Your task to perform on an android device: Go to accessibility settings Image 0: 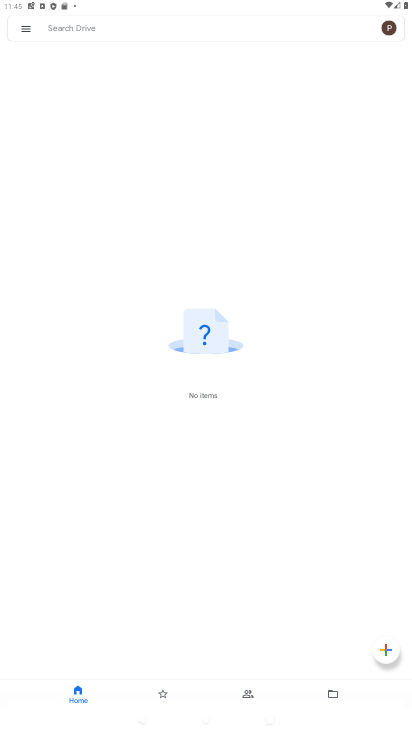
Step 0: press home button
Your task to perform on an android device: Go to accessibility settings Image 1: 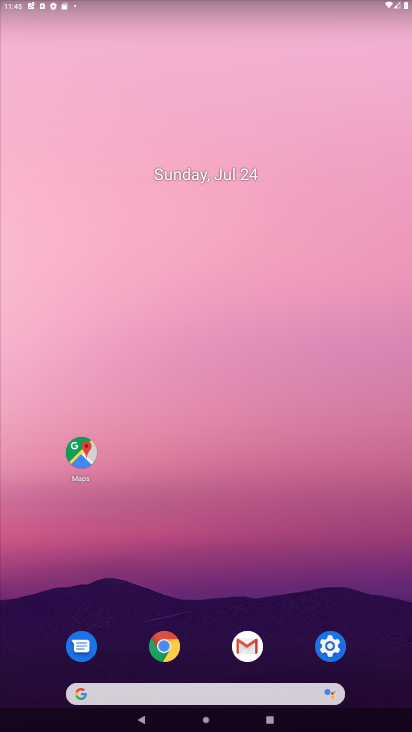
Step 1: click (333, 648)
Your task to perform on an android device: Go to accessibility settings Image 2: 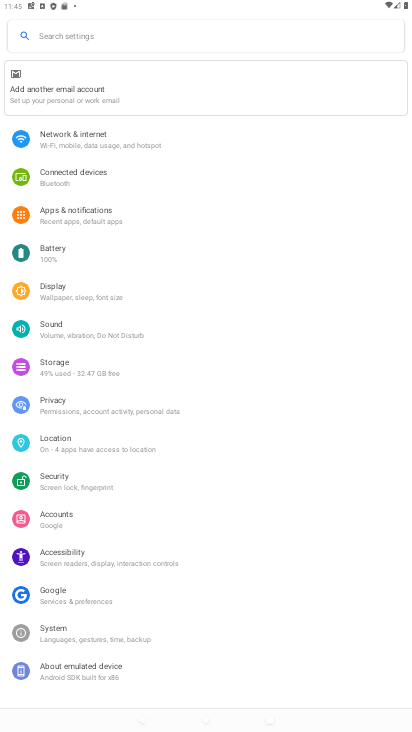
Step 2: click (55, 28)
Your task to perform on an android device: Go to accessibility settings Image 3: 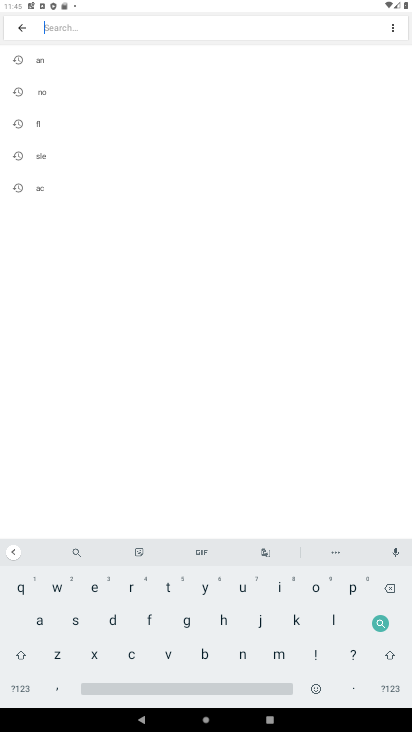
Step 3: click (38, 616)
Your task to perform on an android device: Go to accessibility settings Image 4: 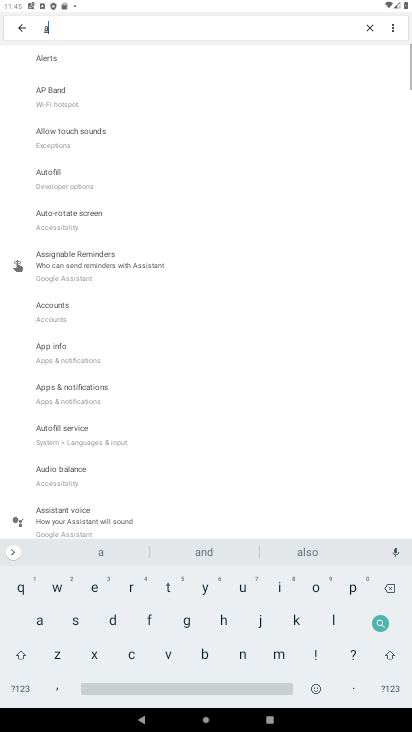
Step 4: click (132, 653)
Your task to perform on an android device: Go to accessibility settings Image 5: 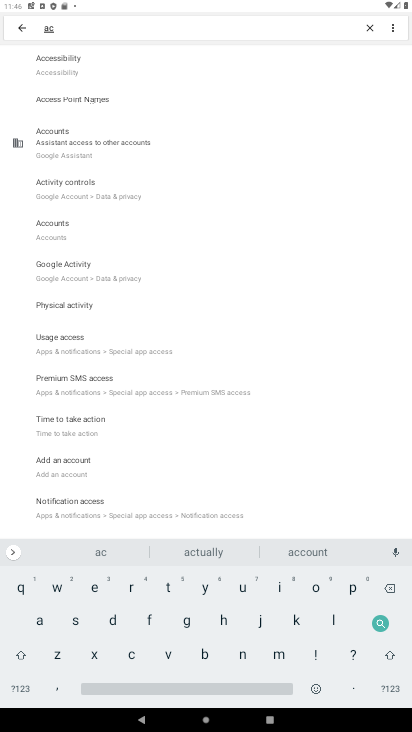
Step 5: click (81, 81)
Your task to perform on an android device: Go to accessibility settings Image 6: 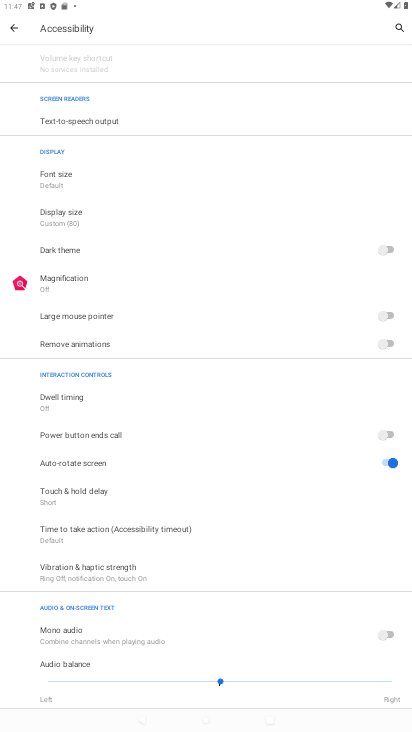
Step 6: task complete